Your task to perform on an android device: turn off notifications settings in the gmail app Image 0: 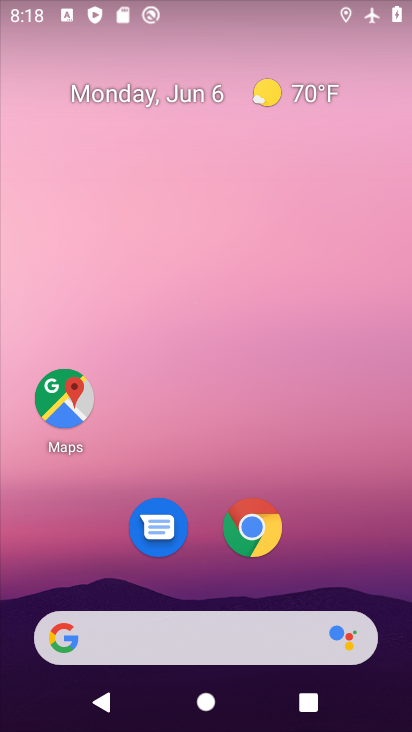
Step 0: drag from (170, 637) to (219, 267)
Your task to perform on an android device: turn off notifications settings in the gmail app Image 1: 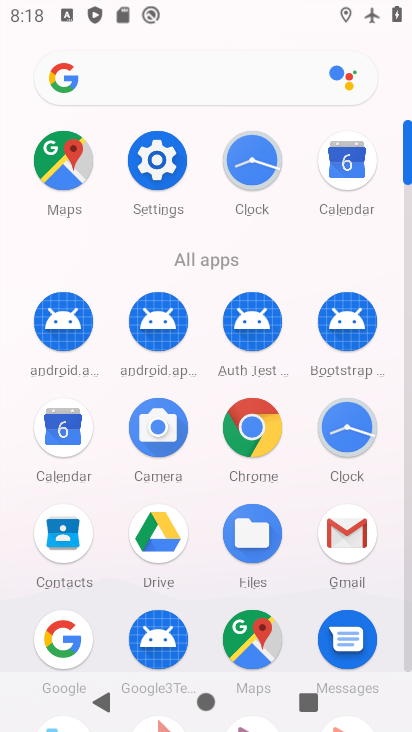
Step 1: drag from (185, 539) to (249, 191)
Your task to perform on an android device: turn off notifications settings in the gmail app Image 2: 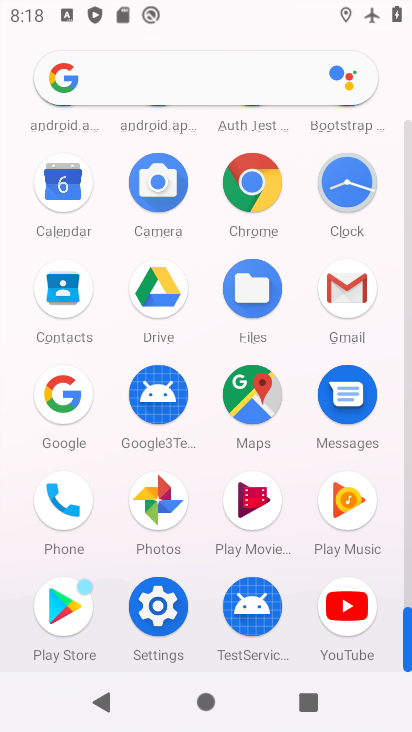
Step 2: click (356, 322)
Your task to perform on an android device: turn off notifications settings in the gmail app Image 3: 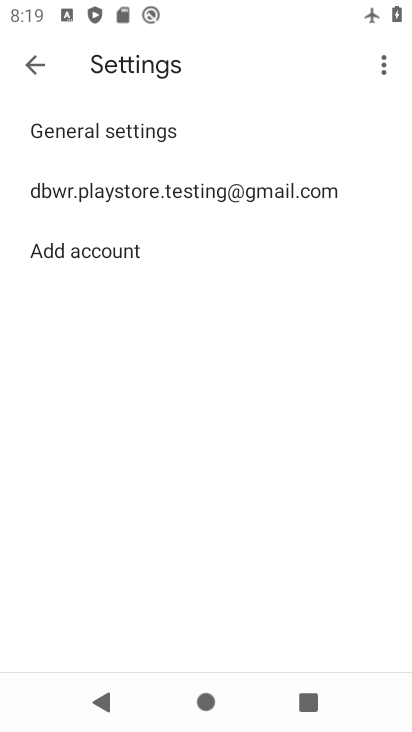
Step 3: click (101, 124)
Your task to perform on an android device: turn off notifications settings in the gmail app Image 4: 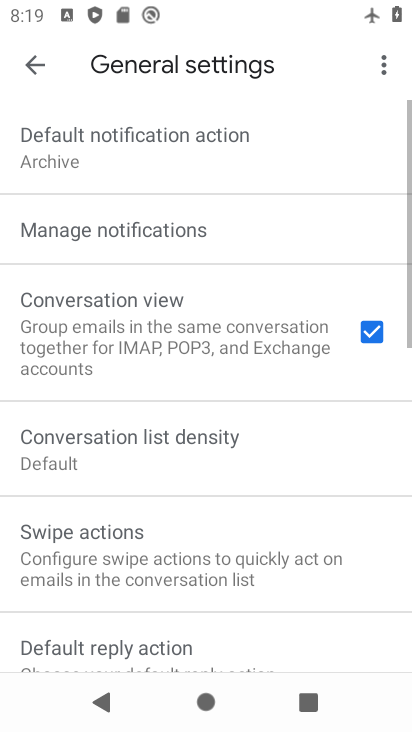
Step 4: click (163, 237)
Your task to perform on an android device: turn off notifications settings in the gmail app Image 5: 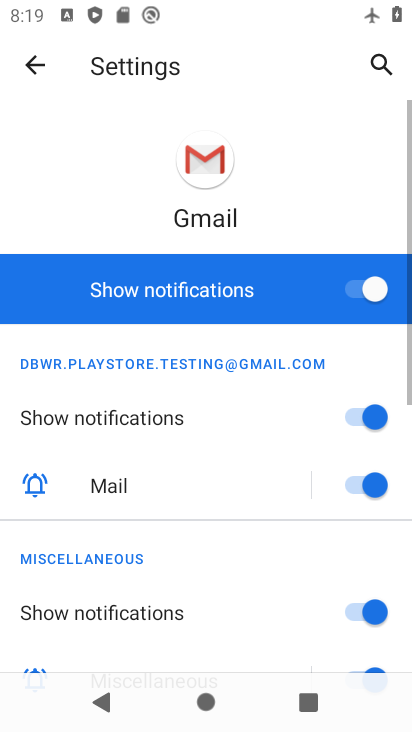
Step 5: click (344, 293)
Your task to perform on an android device: turn off notifications settings in the gmail app Image 6: 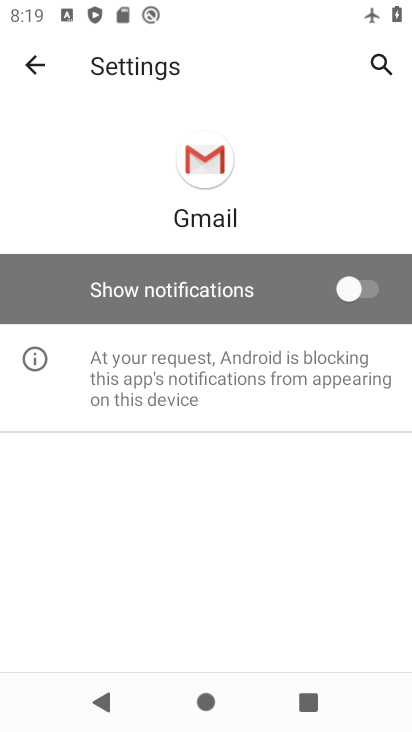
Step 6: task complete